Your task to perform on an android device: all mails in gmail Image 0: 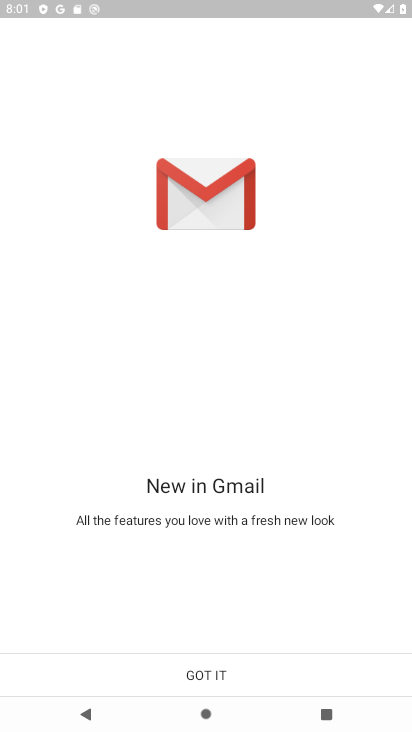
Step 0: press back button
Your task to perform on an android device: all mails in gmail Image 1: 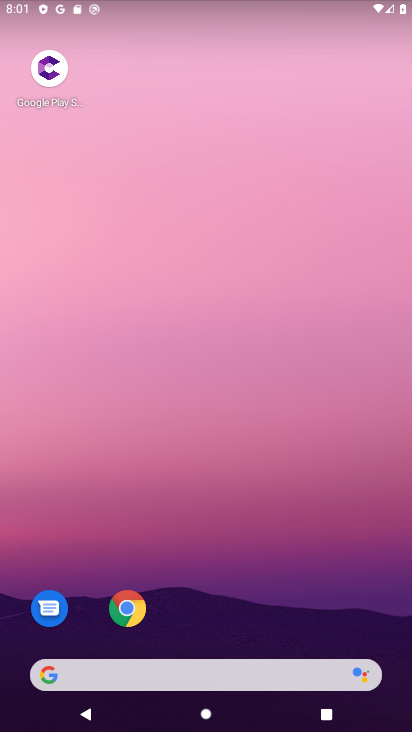
Step 1: drag from (307, 484) to (277, 10)
Your task to perform on an android device: all mails in gmail Image 2: 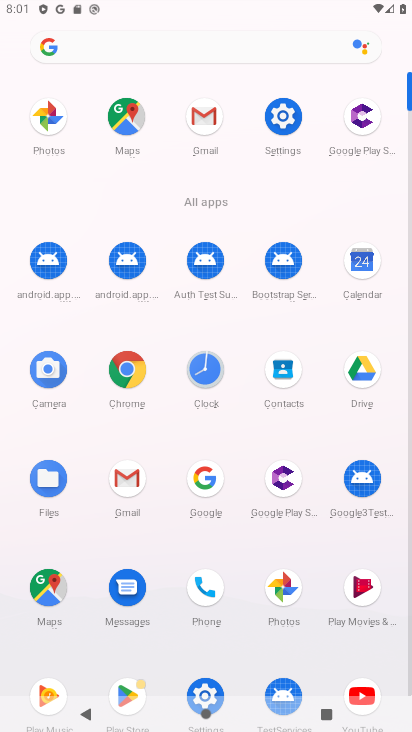
Step 2: click (275, 111)
Your task to perform on an android device: all mails in gmail Image 3: 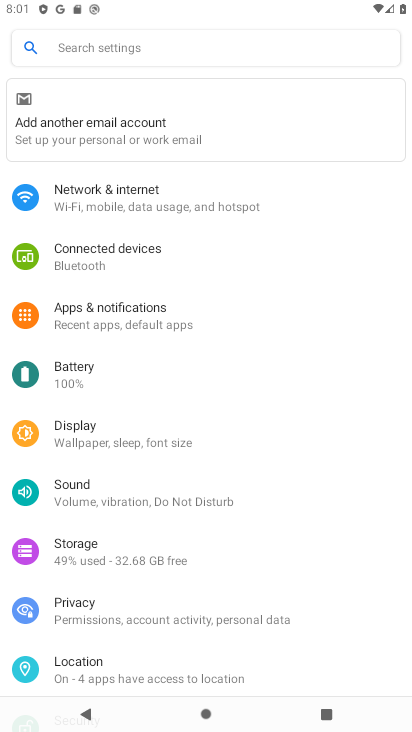
Step 3: click (92, 440)
Your task to perform on an android device: all mails in gmail Image 4: 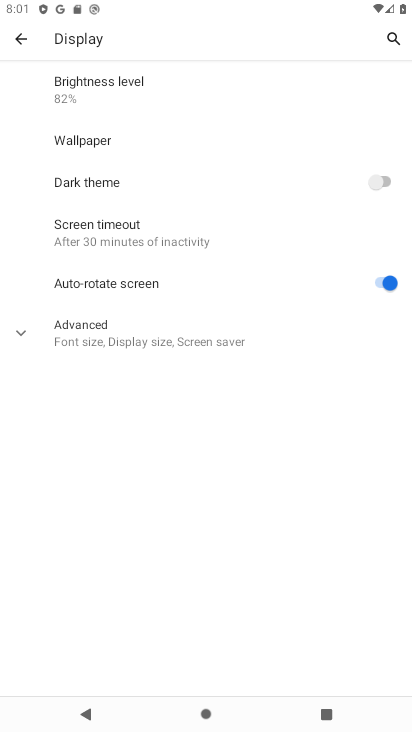
Step 4: click (148, 345)
Your task to perform on an android device: all mails in gmail Image 5: 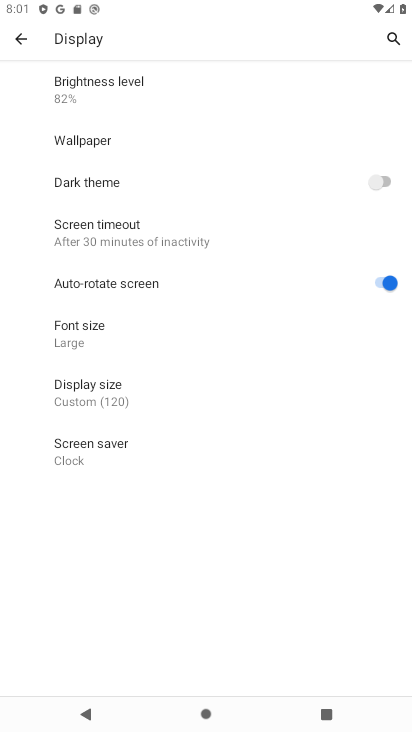
Step 5: click (114, 407)
Your task to perform on an android device: all mails in gmail Image 6: 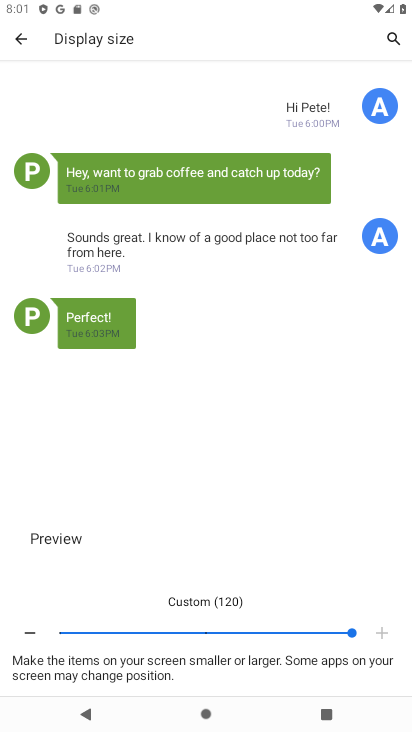
Step 6: click (211, 633)
Your task to perform on an android device: all mails in gmail Image 7: 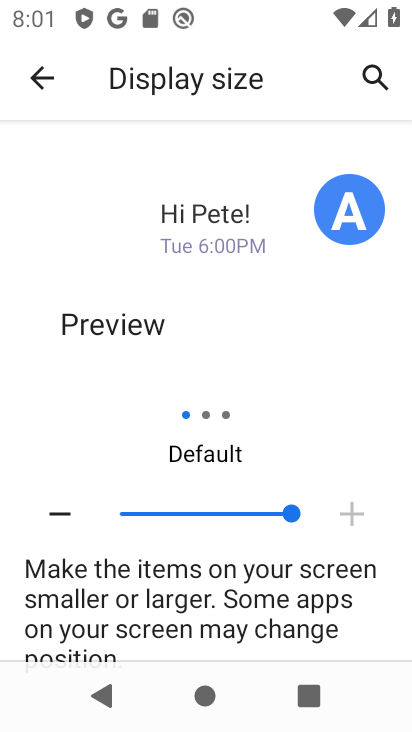
Step 7: click (46, 72)
Your task to perform on an android device: all mails in gmail Image 8: 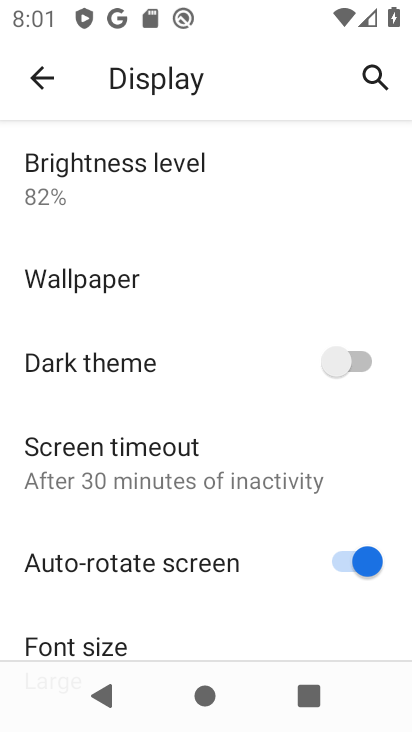
Step 8: click (46, 72)
Your task to perform on an android device: all mails in gmail Image 9: 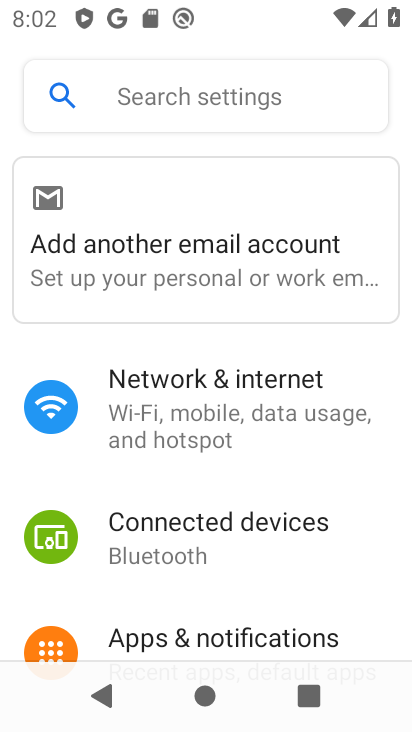
Step 9: press back button
Your task to perform on an android device: all mails in gmail Image 10: 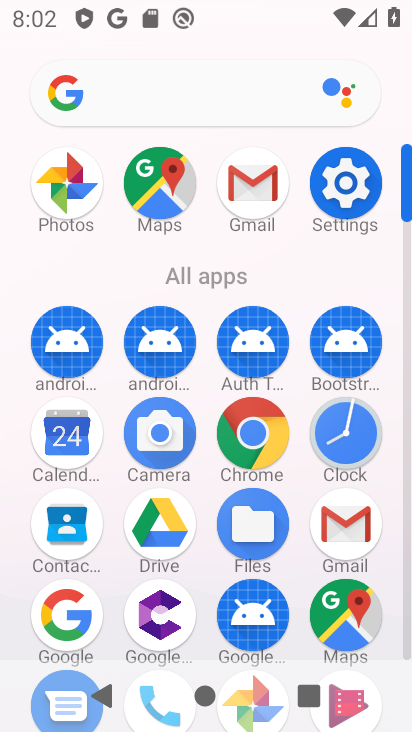
Step 10: click (262, 182)
Your task to perform on an android device: all mails in gmail Image 11: 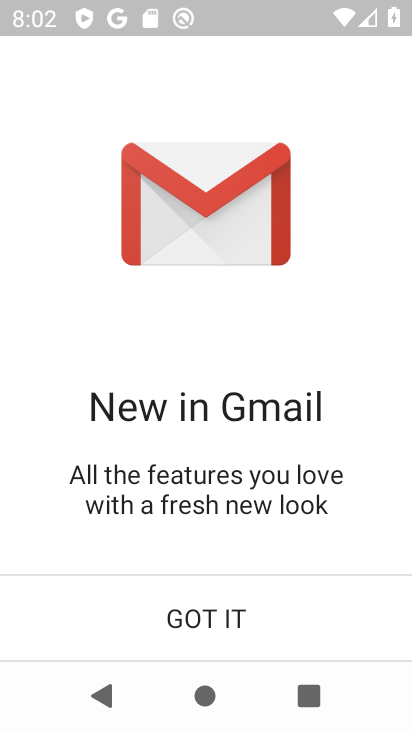
Step 11: click (219, 621)
Your task to perform on an android device: all mails in gmail Image 12: 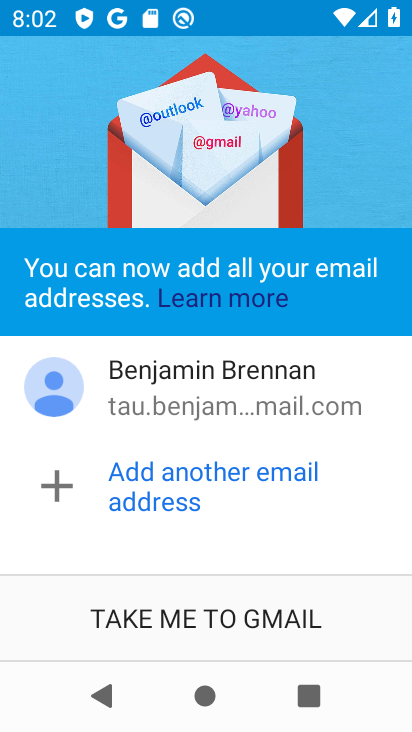
Step 12: click (219, 620)
Your task to perform on an android device: all mails in gmail Image 13: 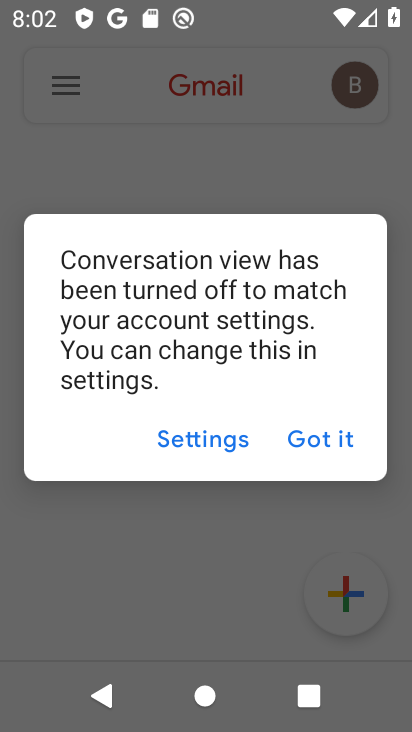
Step 13: click (293, 445)
Your task to perform on an android device: all mails in gmail Image 14: 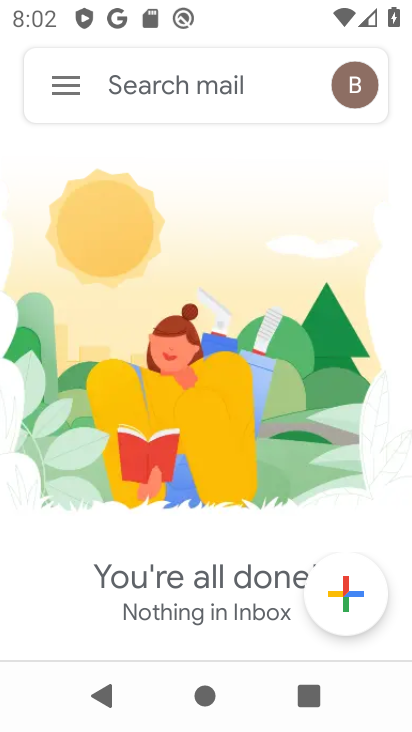
Step 14: click (63, 76)
Your task to perform on an android device: all mails in gmail Image 15: 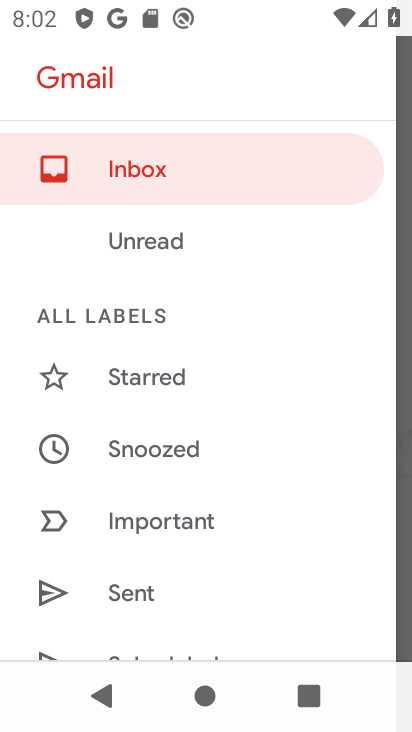
Step 15: drag from (163, 581) to (261, 126)
Your task to perform on an android device: all mails in gmail Image 16: 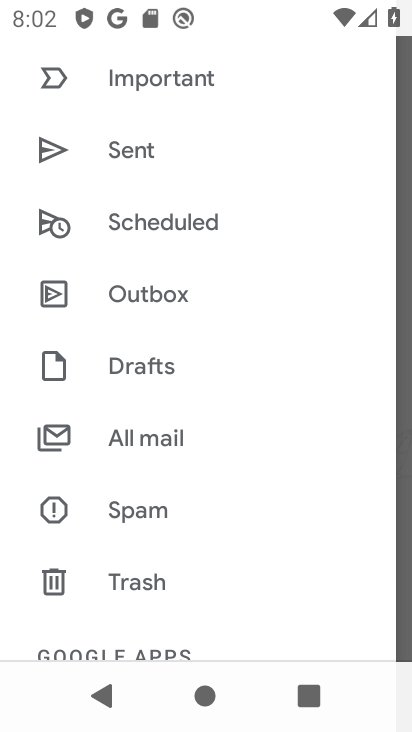
Step 16: click (172, 430)
Your task to perform on an android device: all mails in gmail Image 17: 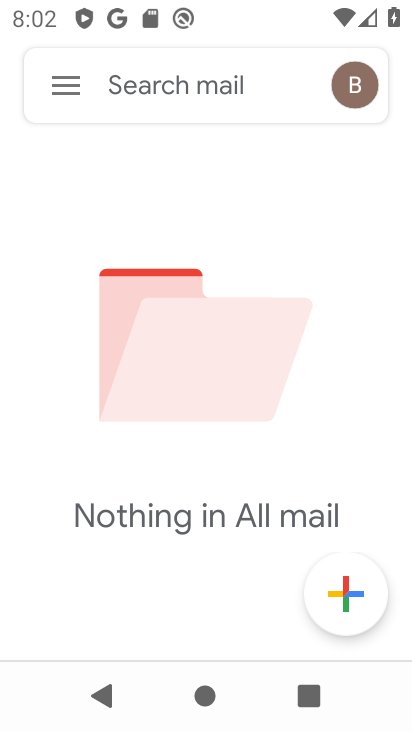
Step 17: task complete